Your task to perform on an android device: What's on my calendar today? Image 0: 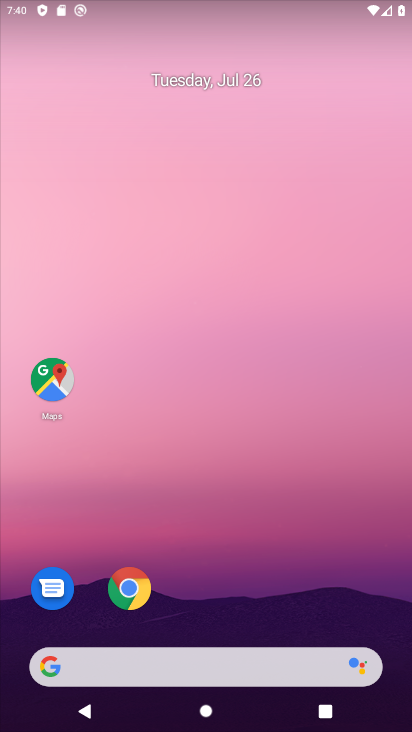
Step 0: drag from (216, 646) to (322, 250)
Your task to perform on an android device: What's on my calendar today? Image 1: 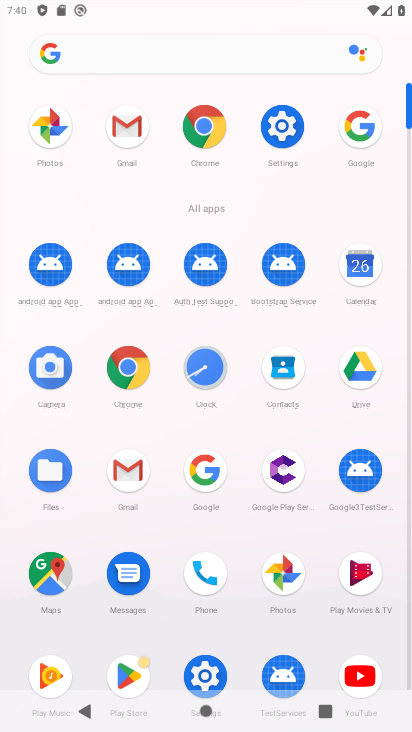
Step 1: click (353, 269)
Your task to perform on an android device: What's on my calendar today? Image 2: 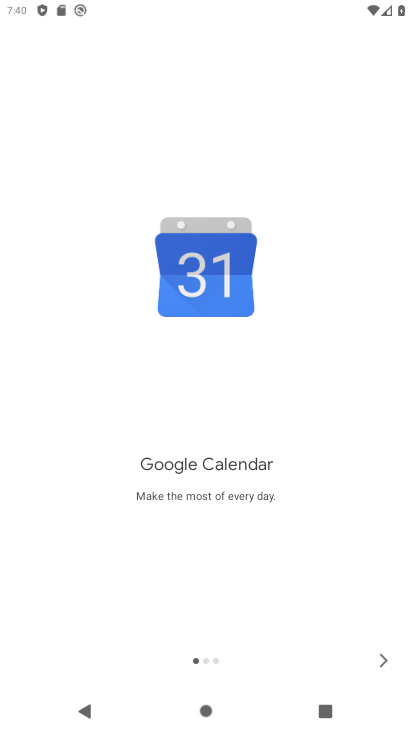
Step 2: click (371, 659)
Your task to perform on an android device: What's on my calendar today? Image 3: 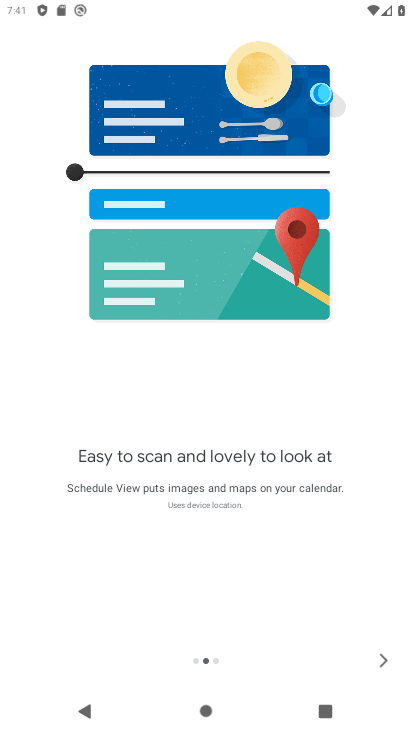
Step 3: click (371, 659)
Your task to perform on an android device: What's on my calendar today? Image 4: 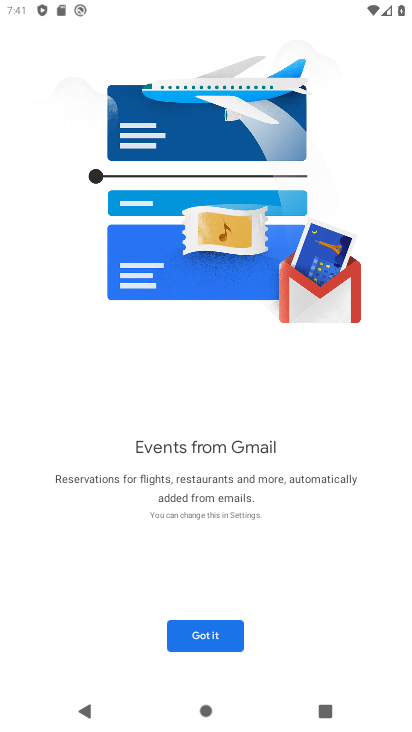
Step 4: click (208, 640)
Your task to perform on an android device: What's on my calendar today? Image 5: 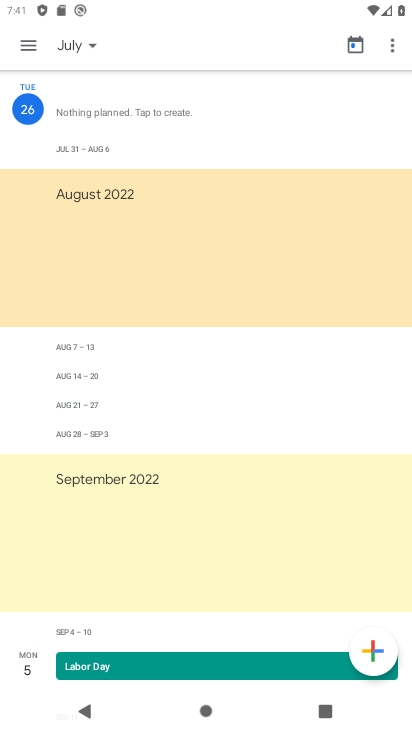
Step 5: click (70, 45)
Your task to perform on an android device: What's on my calendar today? Image 6: 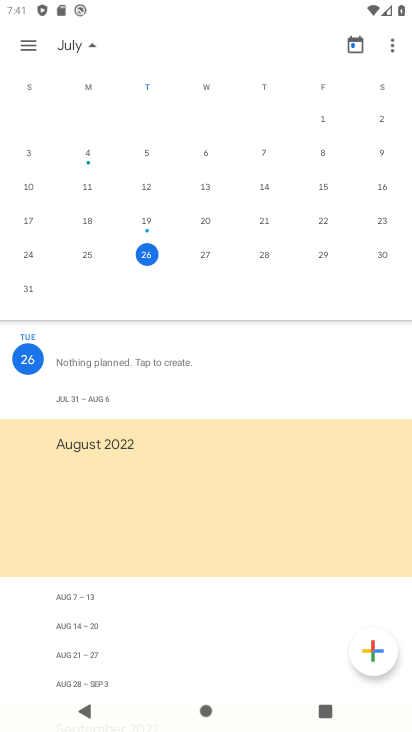
Step 6: click (147, 262)
Your task to perform on an android device: What's on my calendar today? Image 7: 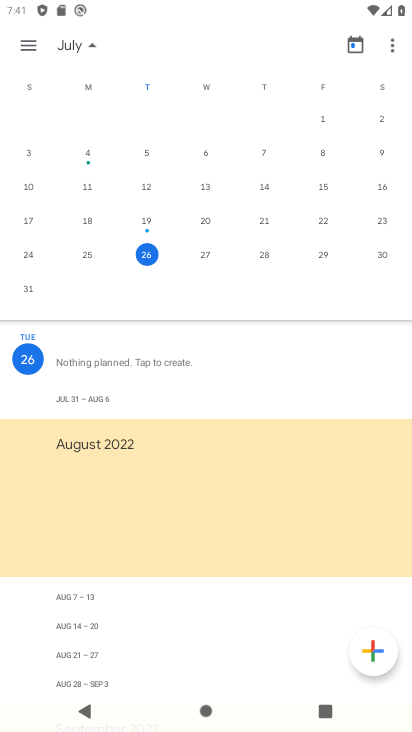
Step 7: click (147, 251)
Your task to perform on an android device: What's on my calendar today? Image 8: 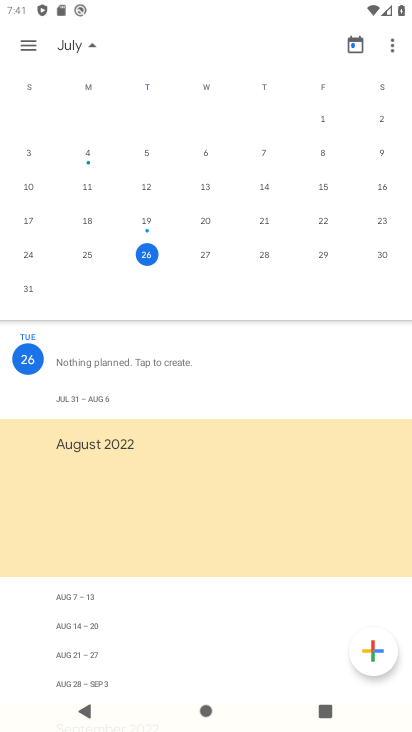
Step 8: task complete